Your task to perform on an android device: turn off location Image 0: 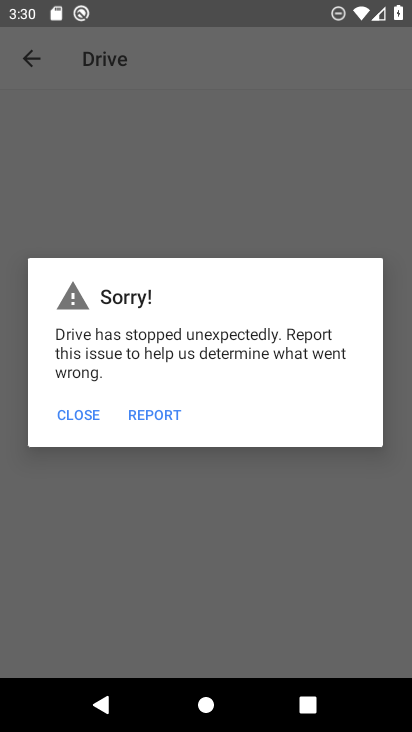
Step 0: press home button
Your task to perform on an android device: turn off location Image 1: 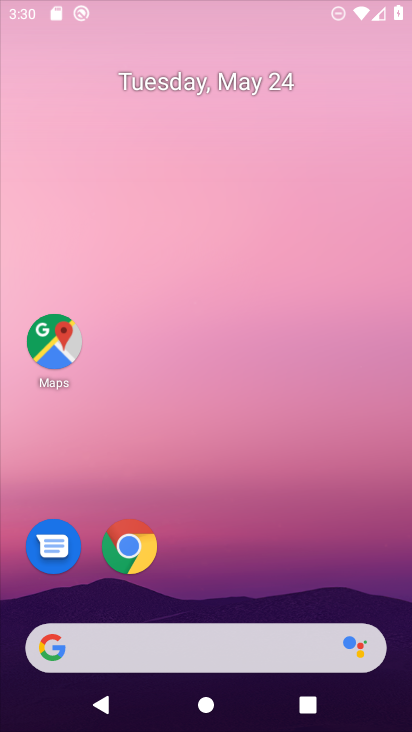
Step 1: drag from (337, 565) to (213, 0)
Your task to perform on an android device: turn off location Image 2: 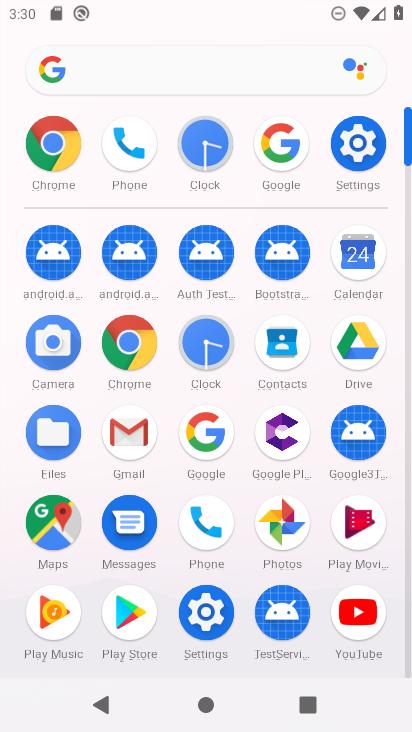
Step 2: click (356, 147)
Your task to perform on an android device: turn off location Image 3: 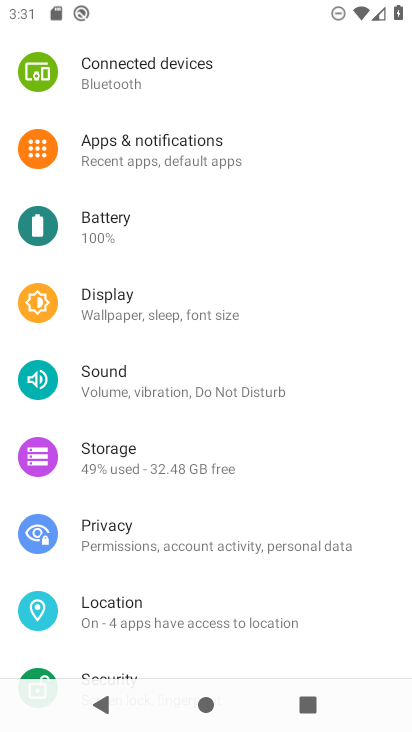
Step 3: click (179, 604)
Your task to perform on an android device: turn off location Image 4: 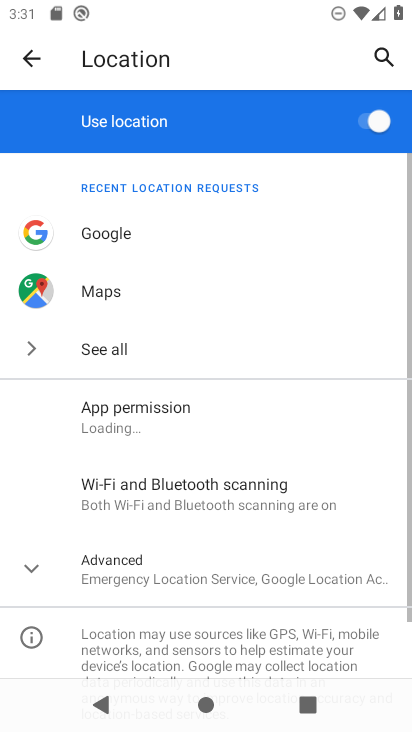
Step 4: click (370, 114)
Your task to perform on an android device: turn off location Image 5: 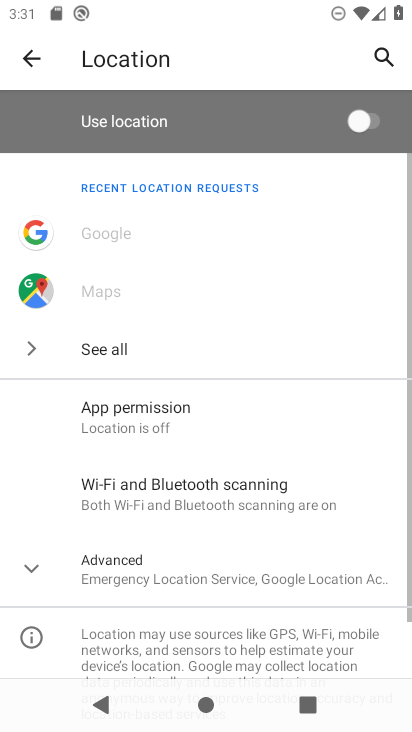
Step 5: task complete